Your task to perform on an android device: Open the phone app and click the voicemail tab. Image 0: 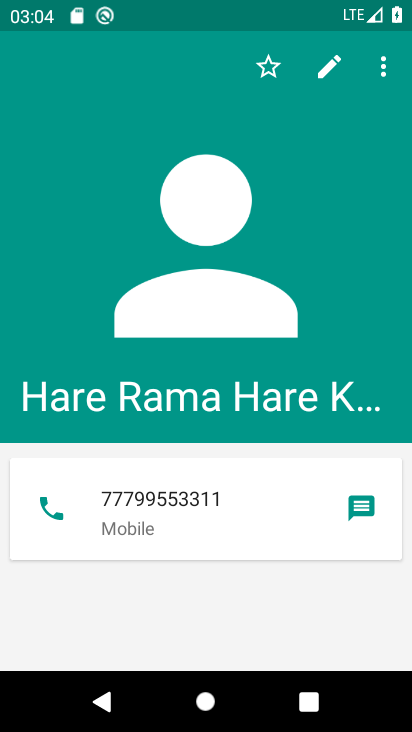
Step 0: press home button
Your task to perform on an android device: Open the phone app and click the voicemail tab. Image 1: 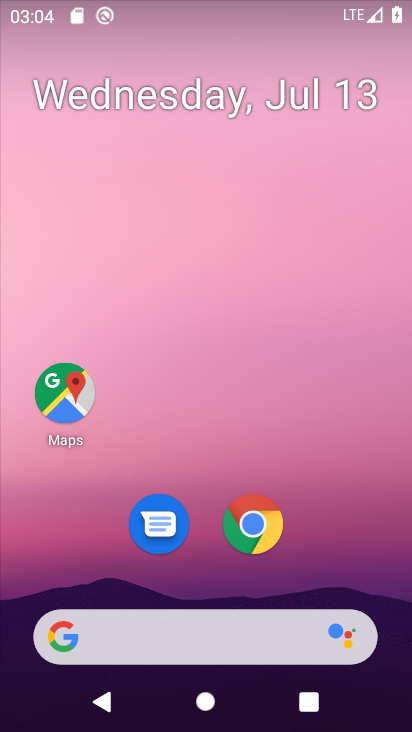
Step 1: drag from (328, 531) to (369, 12)
Your task to perform on an android device: Open the phone app and click the voicemail tab. Image 2: 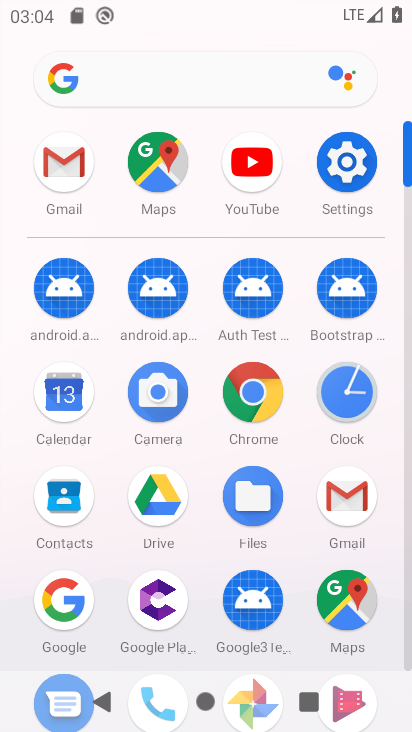
Step 2: drag from (200, 483) to (211, 256)
Your task to perform on an android device: Open the phone app and click the voicemail tab. Image 3: 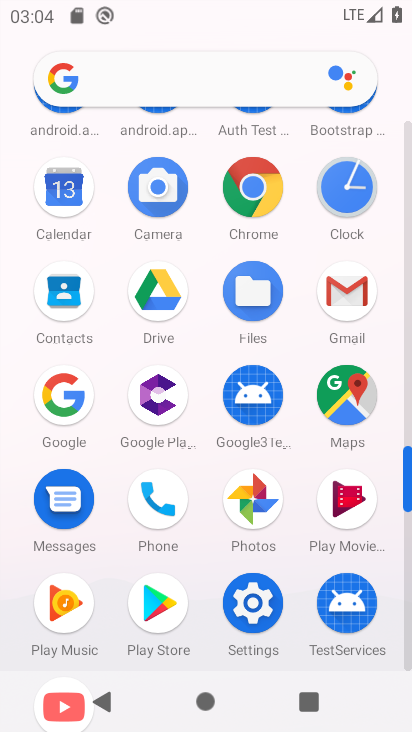
Step 3: click (161, 487)
Your task to perform on an android device: Open the phone app and click the voicemail tab. Image 4: 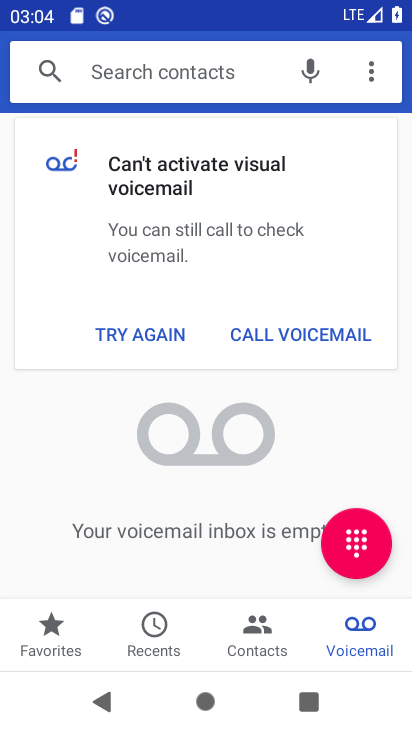
Step 4: click (359, 632)
Your task to perform on an android device: Open the phone app and click the voicemail tab. Image 5: 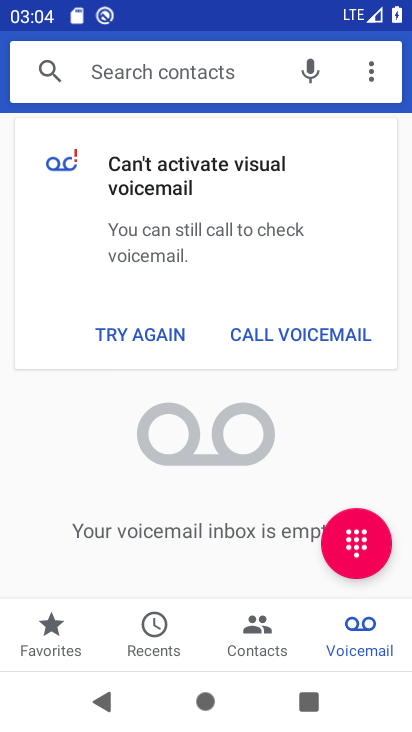
Step 5: task complete